Your task to perform on an android device: search for starred emails in the gmail app Image 0: 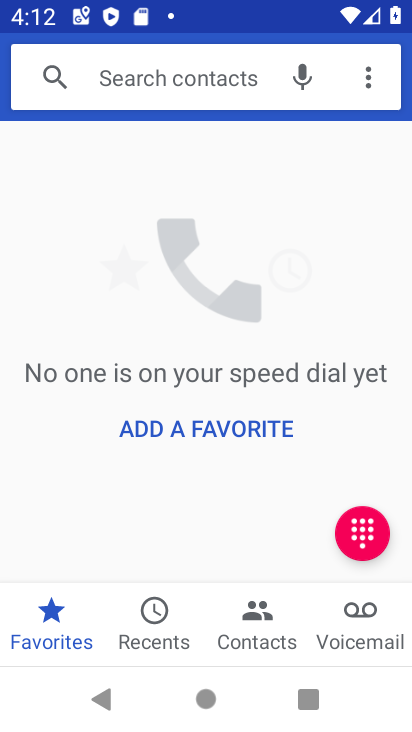
Step 0: press home button
Your task to perform on an android device: search for starred emails in the gmail app Image 1: 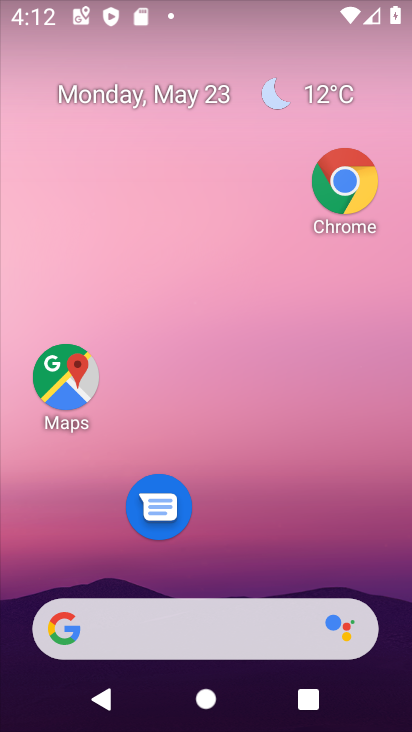
Step 1: press home button
Your task to perform on an android device: search for starred emails in the gmail app Image 2: 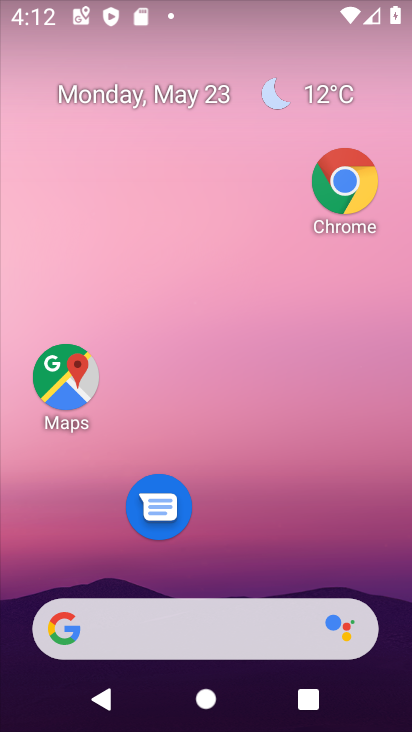
Step 2: drag from (205, 577) to (324, 22)
Your task to perform on an android device: search for starred emails in the gmail app Image 3: 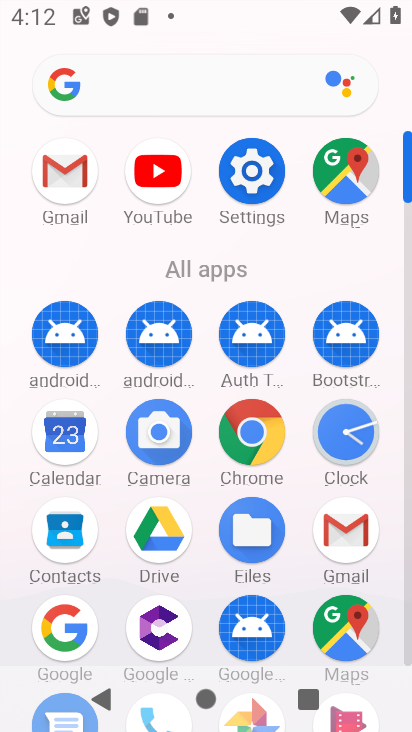
Step 3: click (329, 549)
Your task to perform on an android device: search for starred emails in the gmail app Image 4: 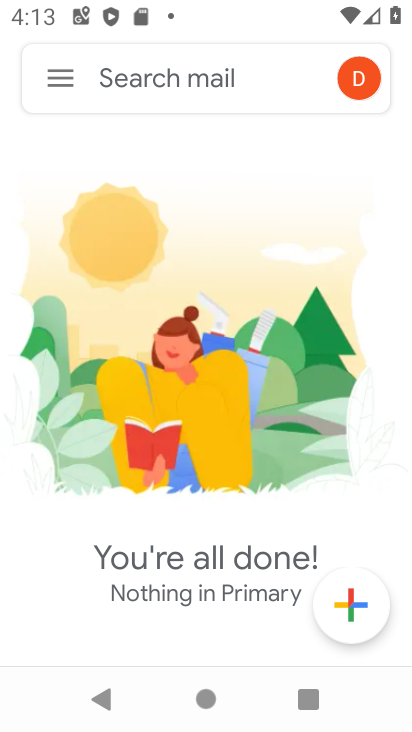
Step 4: click (69, 66)
Your task to perform on an android device: search for starred emails in the gmail app Image 5: 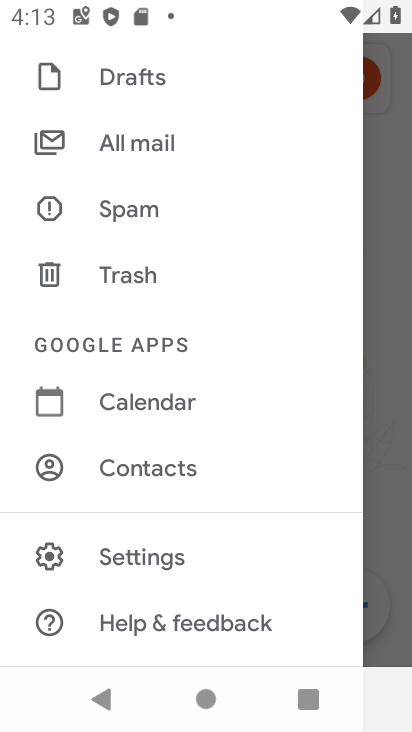
Step 5: drag from (149, 149) to (139, 668)
Your task to perform on an android device: search for starred emails in the gmail app Image 6: 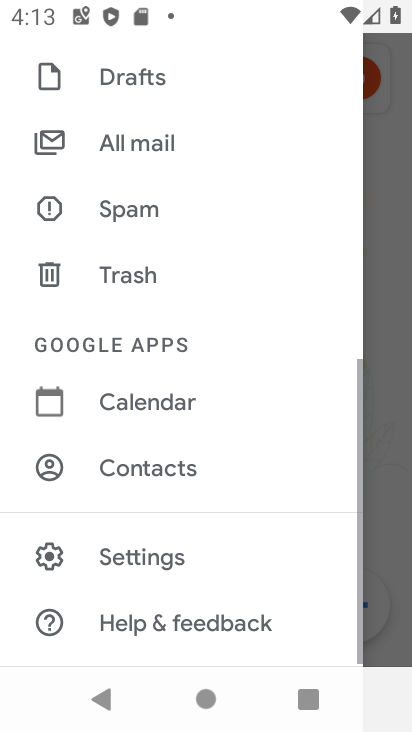
Step 6: drag from (231, 164) to (220, 689)
Your task to perform on an android device: search for starred emails in the gmail app Image 7: 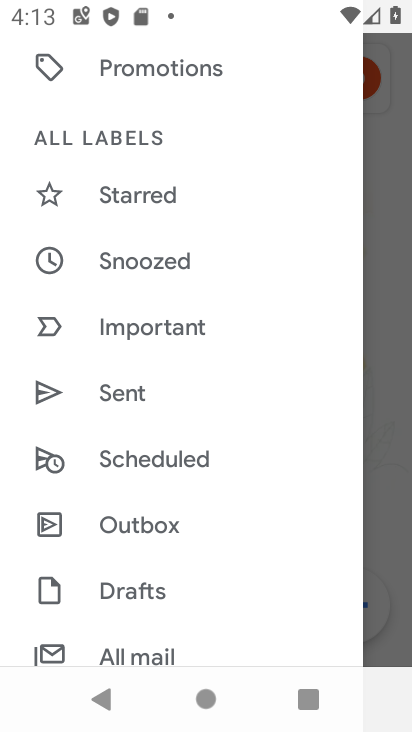
Step 7: click (171, 204)
Your task to perform on an android device: search for starred emails in the gmail app Image 8: 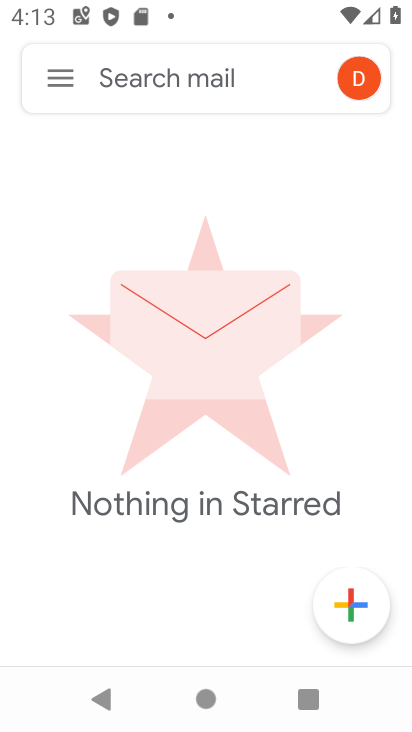
Step 8: task complete